Your task to perform on an android device: check data usage Image 0: 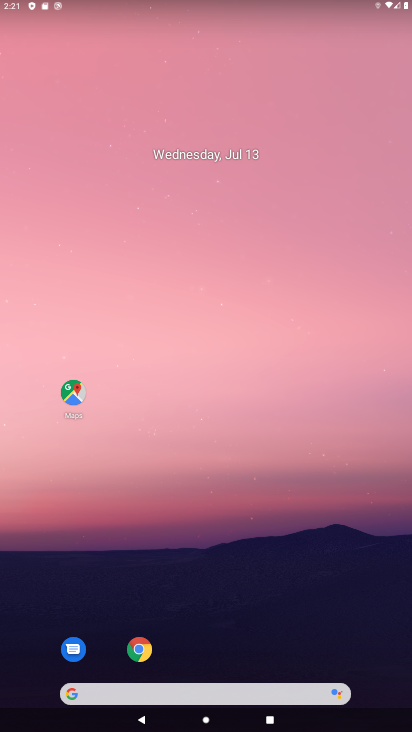
Step 0: drag from (203, 613) to (206, 81)
Your task to perform on an android device: check data usage Image 1: 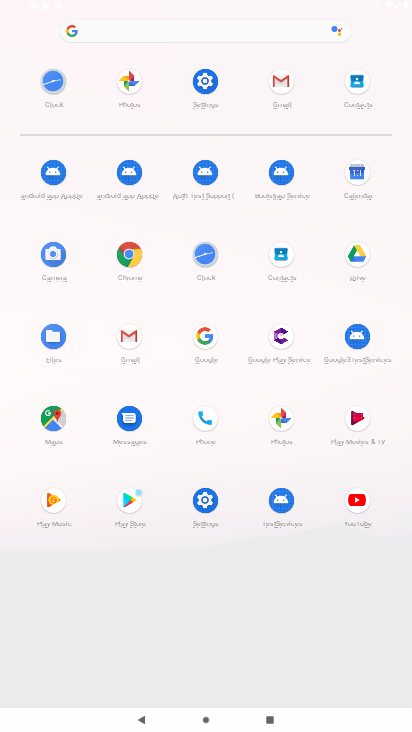
Step 1: click (204, 83)
Your task to perform on an android device: check data usage Image 2: 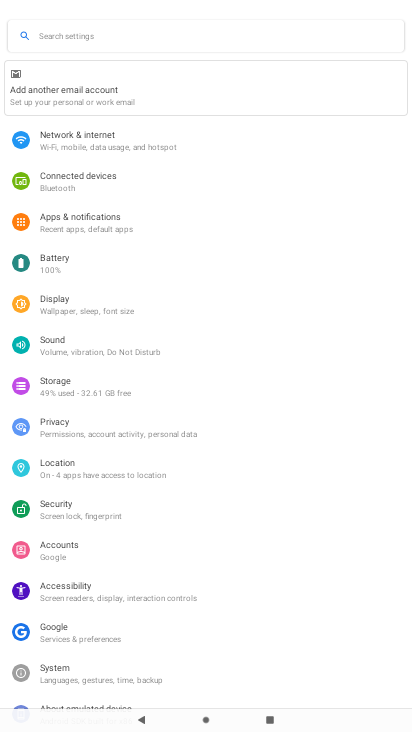
Step 2: click (85, 134)
Your task to perform on an android device: check data usage Image 3: 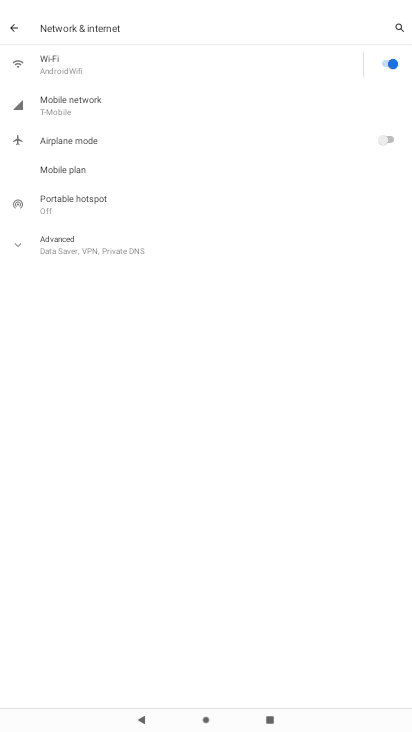
Step 3: click (122, 104)
Your task to perform on an android device: check data usage Image 4: 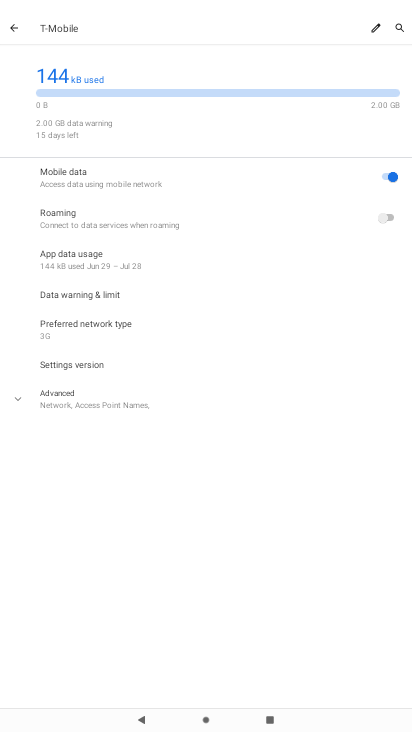
Step 4: task complete